Your task to perform on an android device: Show me popular videos on Youtube Image 0: 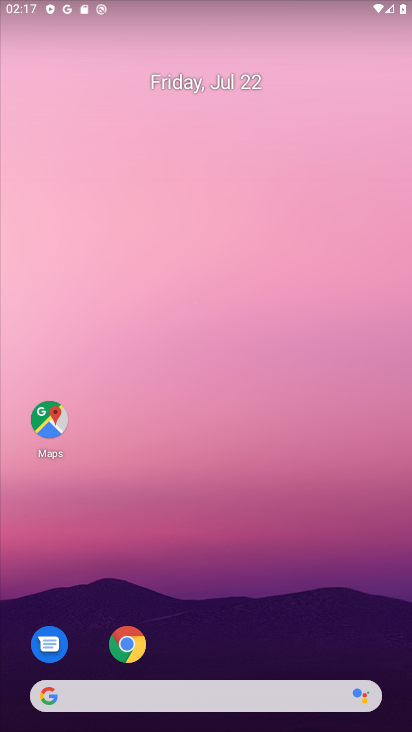
Step 0: drag from (142, 711) to (295, 30)
Your task to perform on an android device: Show me popular videos on Youtube Image 1: 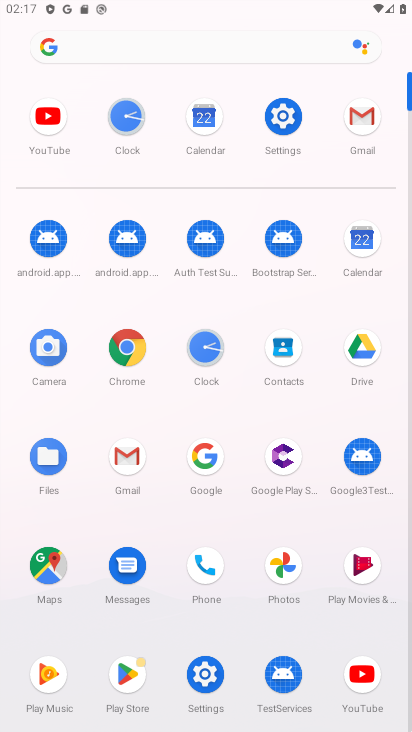
Step 1: click (351, 686)
Your task to perform on an android device: Show me popular videos on Youtube Image 2: 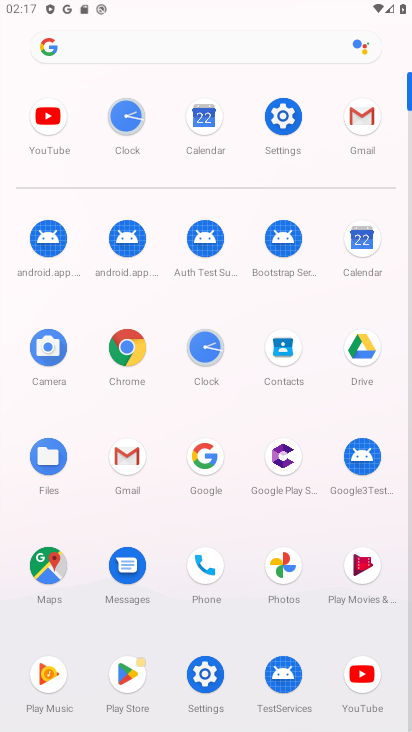
Step 2: click (351, 686)
Your task to perform on an android device: Show me popular videos on Youtube Image 3: 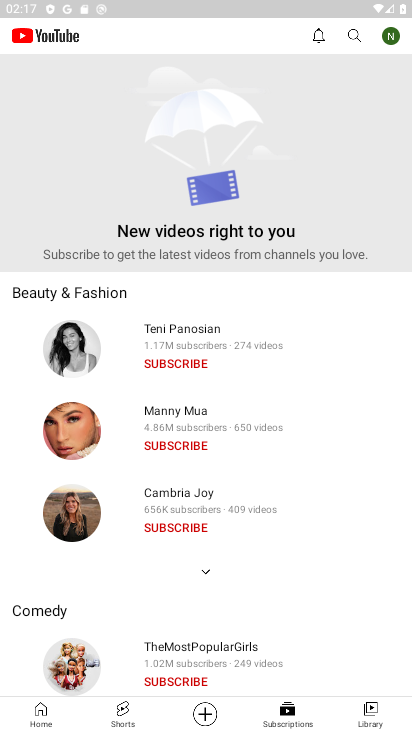
Step 3: click (60, 723)
Your task to perform on an android device: Show me popular videos on Youtube Image 4: 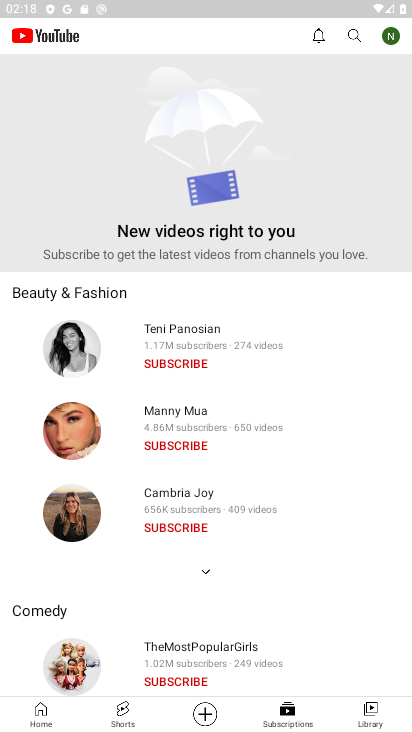
Step 4: click (29, 703)
Your task to perform on an android device: Show me popular videos on Youtube Image 5: 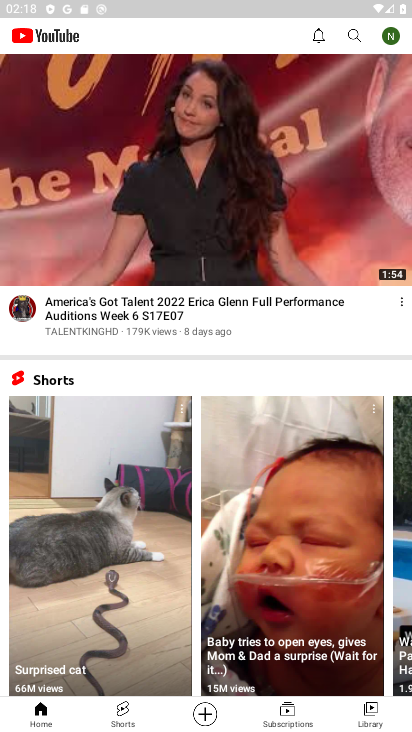
Step 5: task complete